Your task to perform on an android device: Open internet settings Image 0: 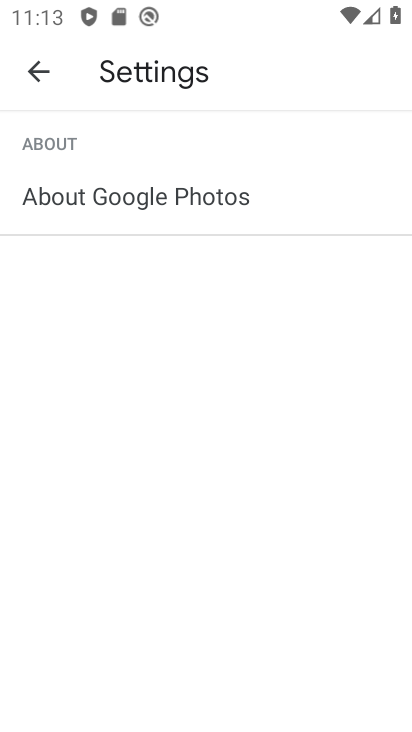
Step 0: task complete